Your task to perform on an android device: turn notification dots on Image 0: 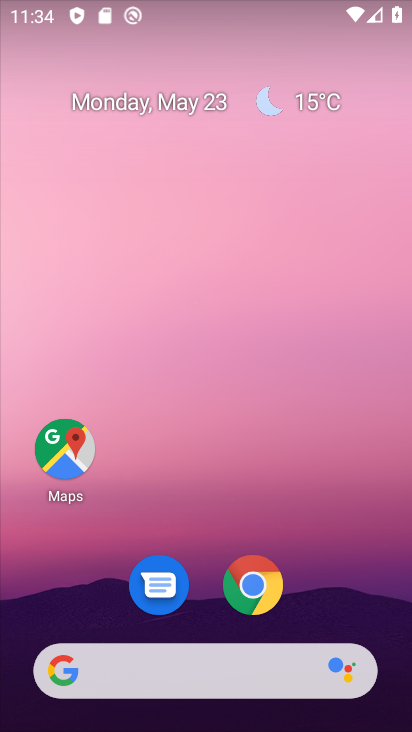
Step 0: drag from (200, 481) to (229, 32)
Your task to perform on an android device: turn notification dots on Image 1: 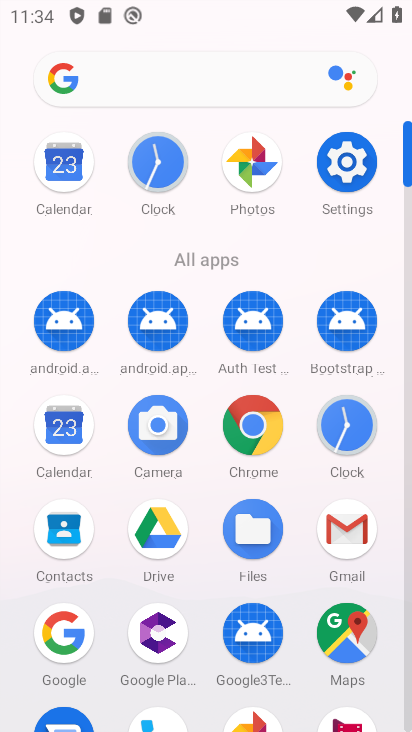
Step 1: click (343, 165)
Your task to perform on an android device: turn notification dots on Image 2: 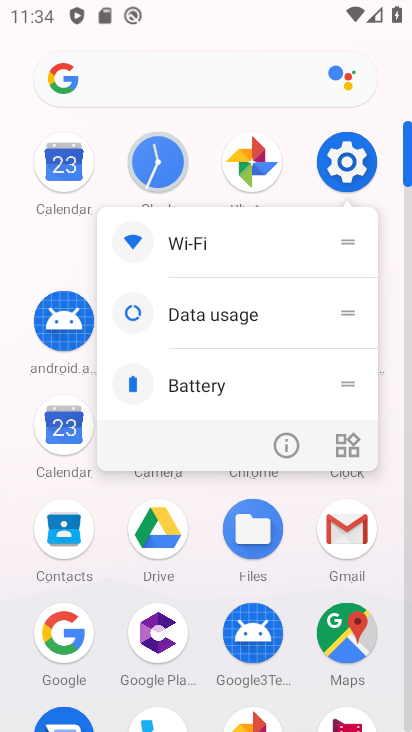
Step 2: click (343, 165)
Your task to perform on an android device: turn notification dots on Image 3: 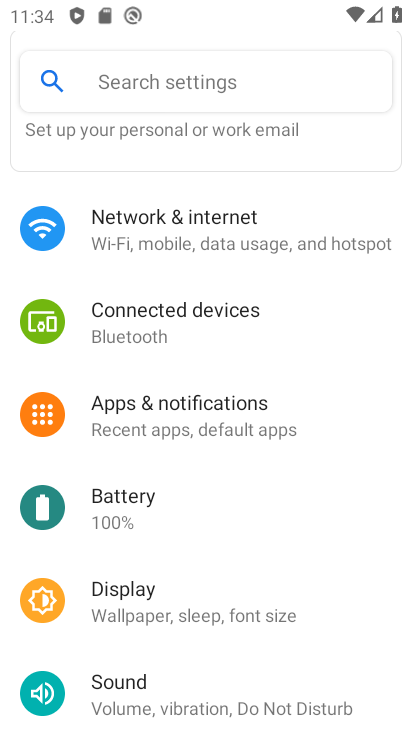
Step 3: click (201, 424)
Your task to perform on an android device: turn notification dots on Image 4: 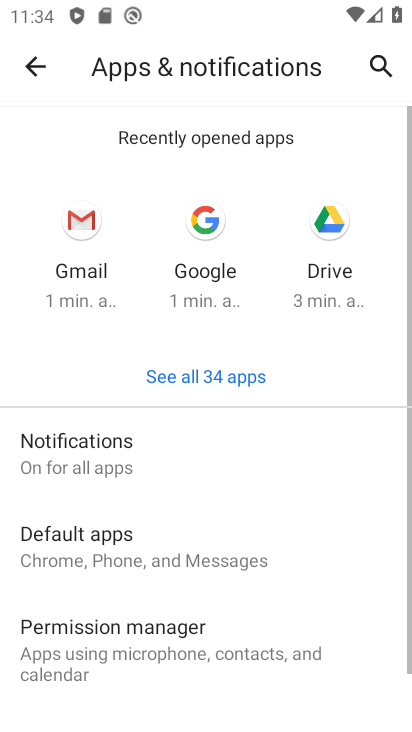
Step 4: click (204, 456)
Your task to perform on an android device: turn notification dots on Image 5: 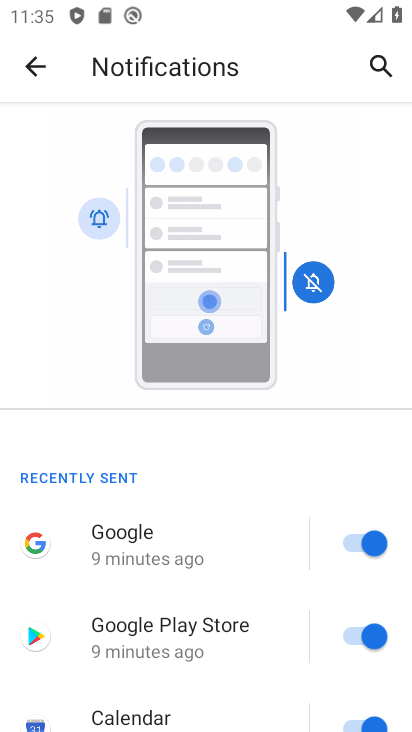
Step 5: drag from (219, 658) to (264, 95)
Your task to perform on an android device: turn notification dots on Image 6: 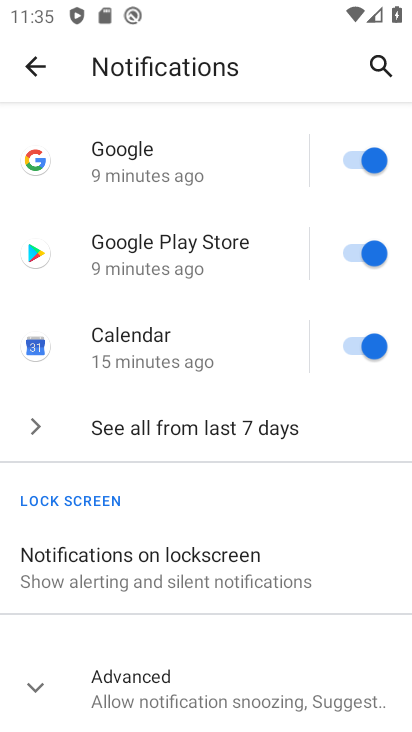
Step 6: click (37, 689)
Your task to perform on an android device: turn notification dots on Image 7: 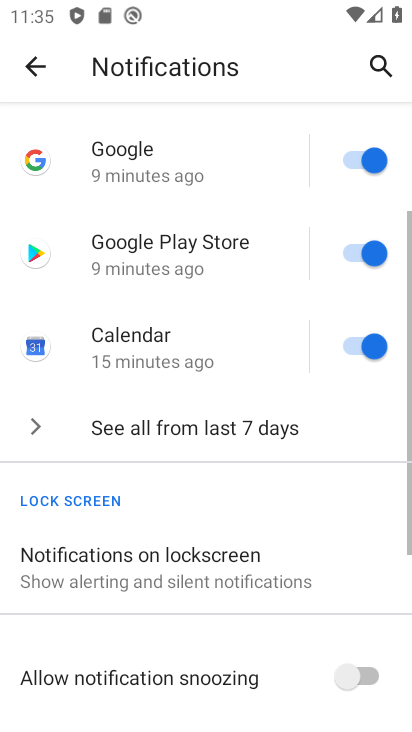
Step 7: task complete